Your task to perform on an android device: turn on notifications settings in the gmail app Image 0: 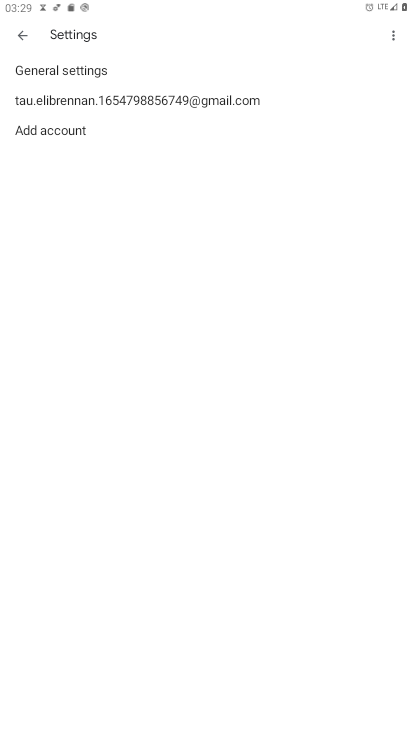
Step 0: press home button
Your task to perform on an android device: turn on notifications settings in the gmail app Image 1: 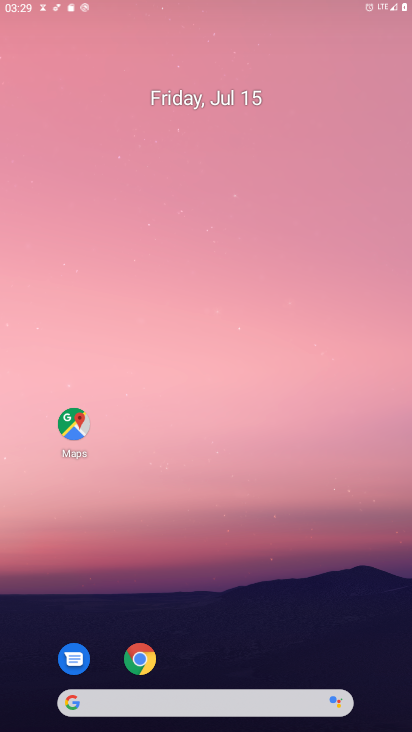
Step 1: drag from (243, 564) to (241, 254)
Your task to perform on an android device: turn on notifications settings in the gmail app Image 2: 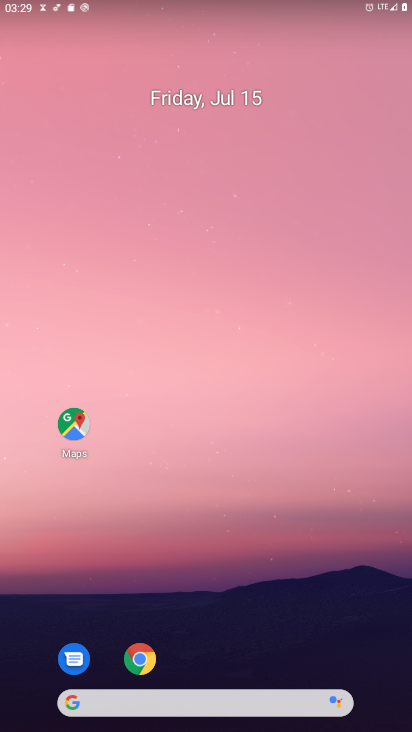
Step 2: drag from (158, 574) to (163, 222)
Your task to perform on an android device: turn on notifications settings in the gmail app Image 3: 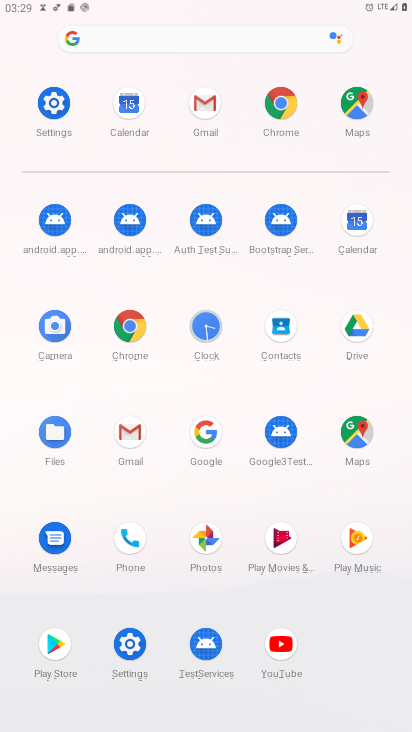
Step 3: click (199, 105)
Your task to perform on an android device: turn on notifications settings in the gmail app Image 4: 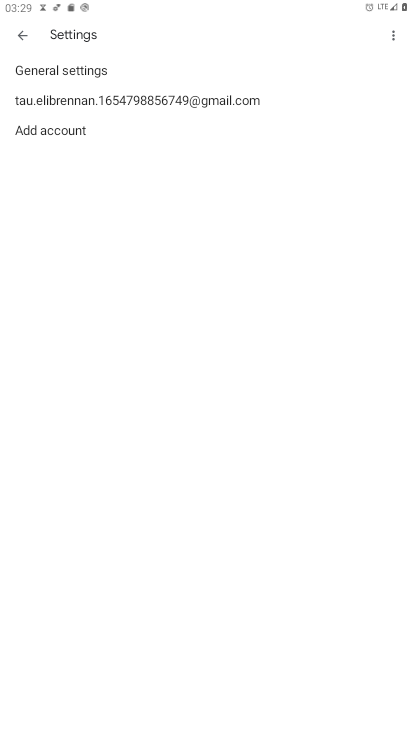
Step 4: click (199, 105)
Your task to perform on an android device: turn on notifications settings in the gmail app Image 5: 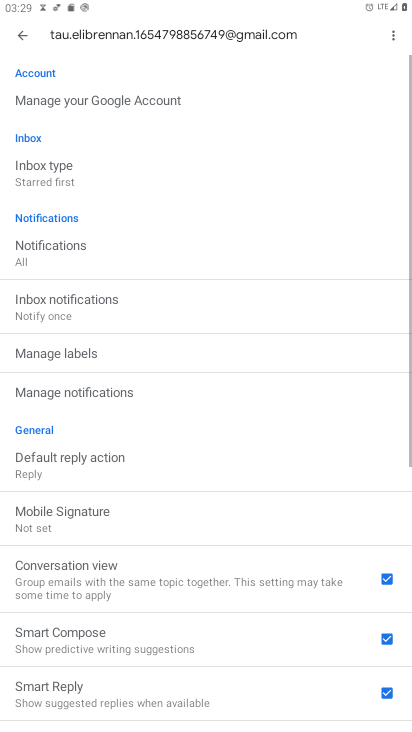
Step 5: click (83, 245)
Your task to perform on an android device: turn on notifications settings in the gmail app Image 6: 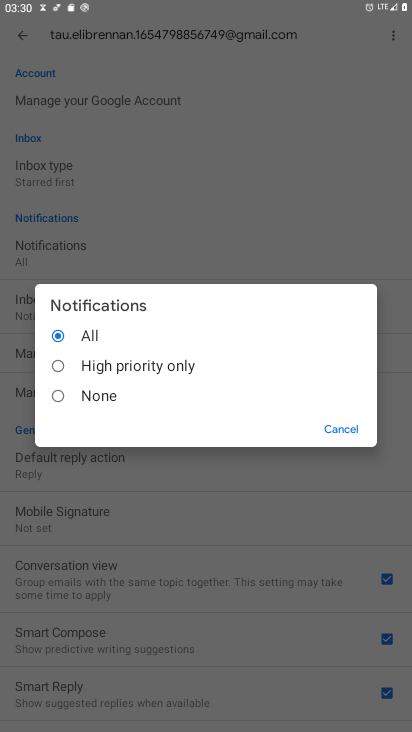
Step 6: task complete